Your task to perform on an android device: toggle location history Image 0: 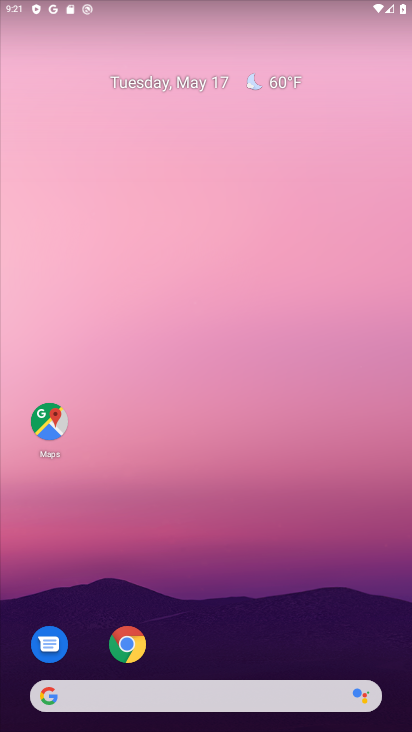
Step 0: drag from (215, 639) to (253, 57)
Your task to perform on an android device: toggle location history Image 1: 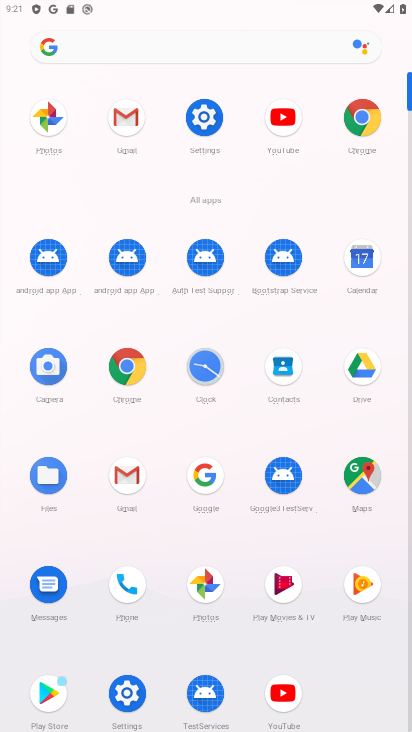
Step 1: click (212, 118)
Your task to perform on an android device: toggle location history Image 2: 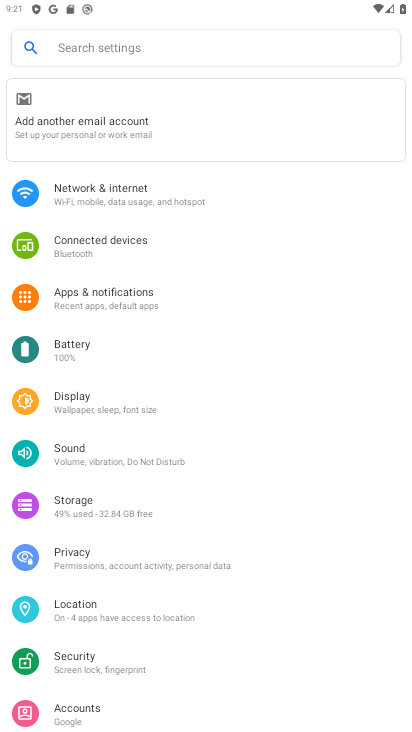
Step 2: click (59, 606)
Your task to perform on an android device: toggle location history Image 3: 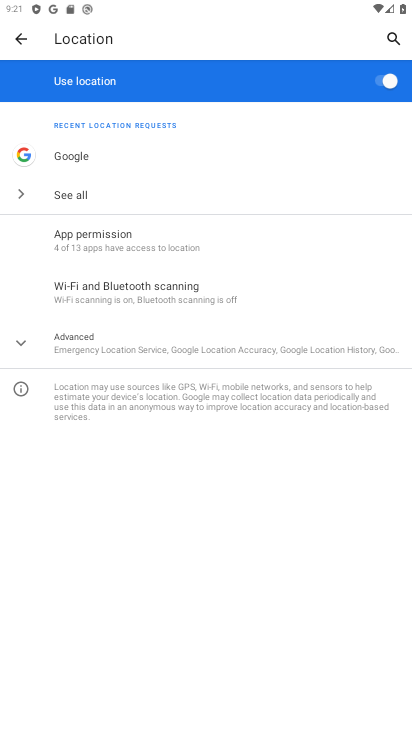
Step 3: click (149, 346)
Your task to perform on an android device: toggle location history Image 4: 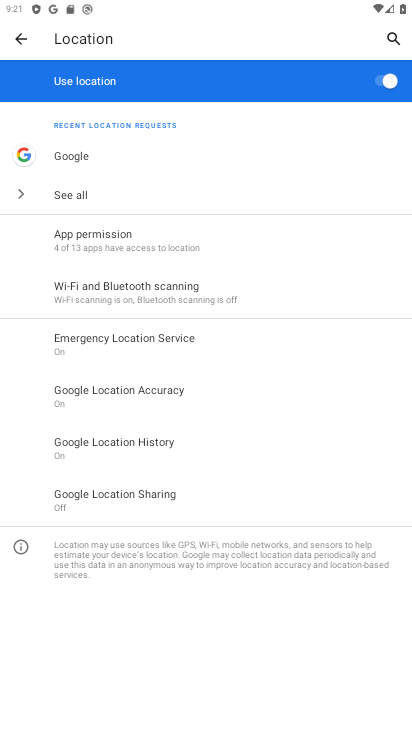
Step 4: click (155, 457)
Your task to perform on an android device: toggle location history Image 5: 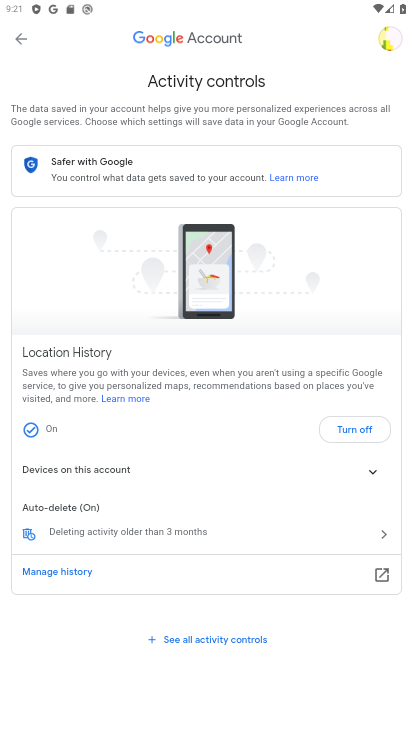
Step 5: click (363, 433)
Your task to perform on an android device: toggle location history Image 6: 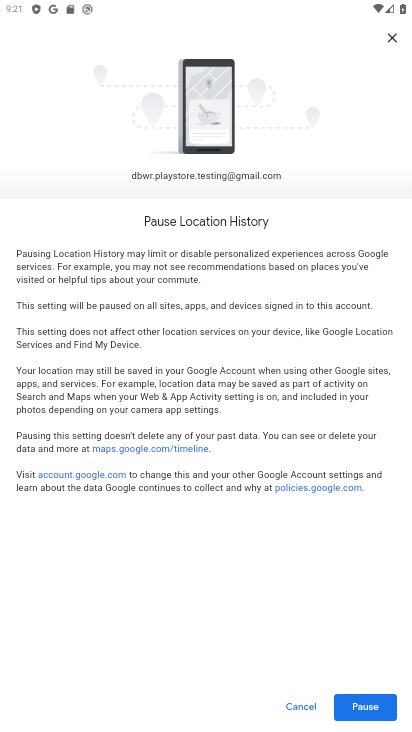
Step 6: click (345, 706)
Your task to perform on an android device: toggle location history Image 7: 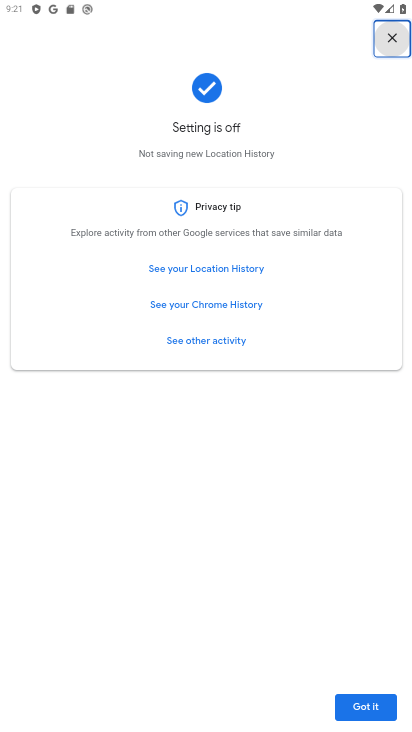
Step 7: click (345, 706)
Your task to perform on an android device: toggle location history Image 8: 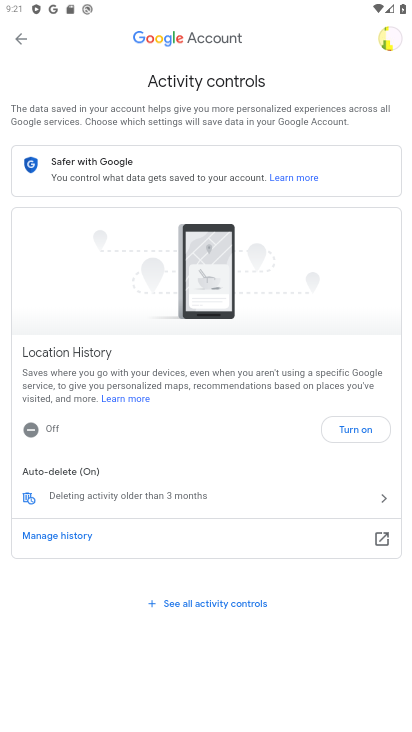
Step 8: task complete